Your task to perform on an android device: open app "Etsy: Buy & Sell Unique Items" (install if not already installed), go to login, and select forgot password Image 0: 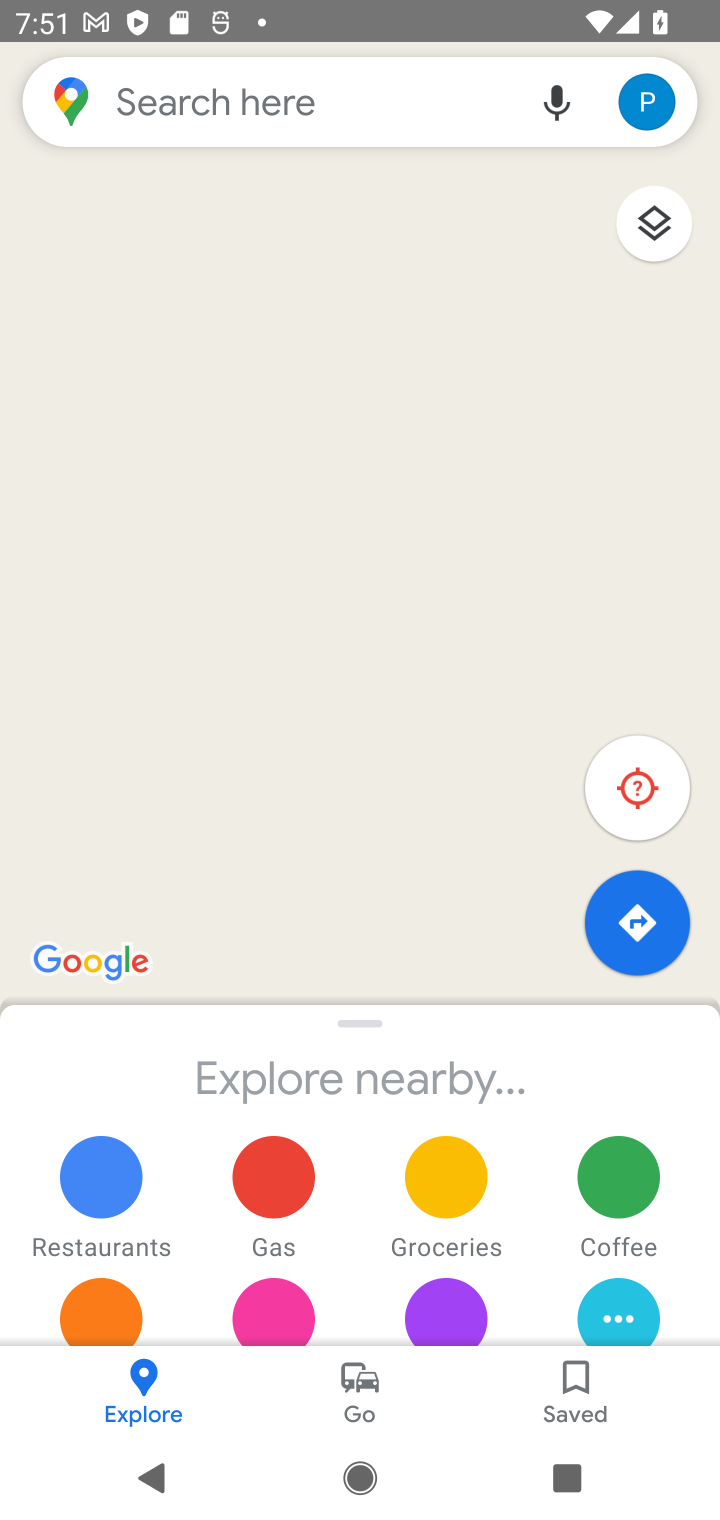
Step 0: press back button
Your task to perform on an android device: open app "Etsy: Buy & Sell Unique Items" (install if not already installed), go to login, and select forgot password Image 1: 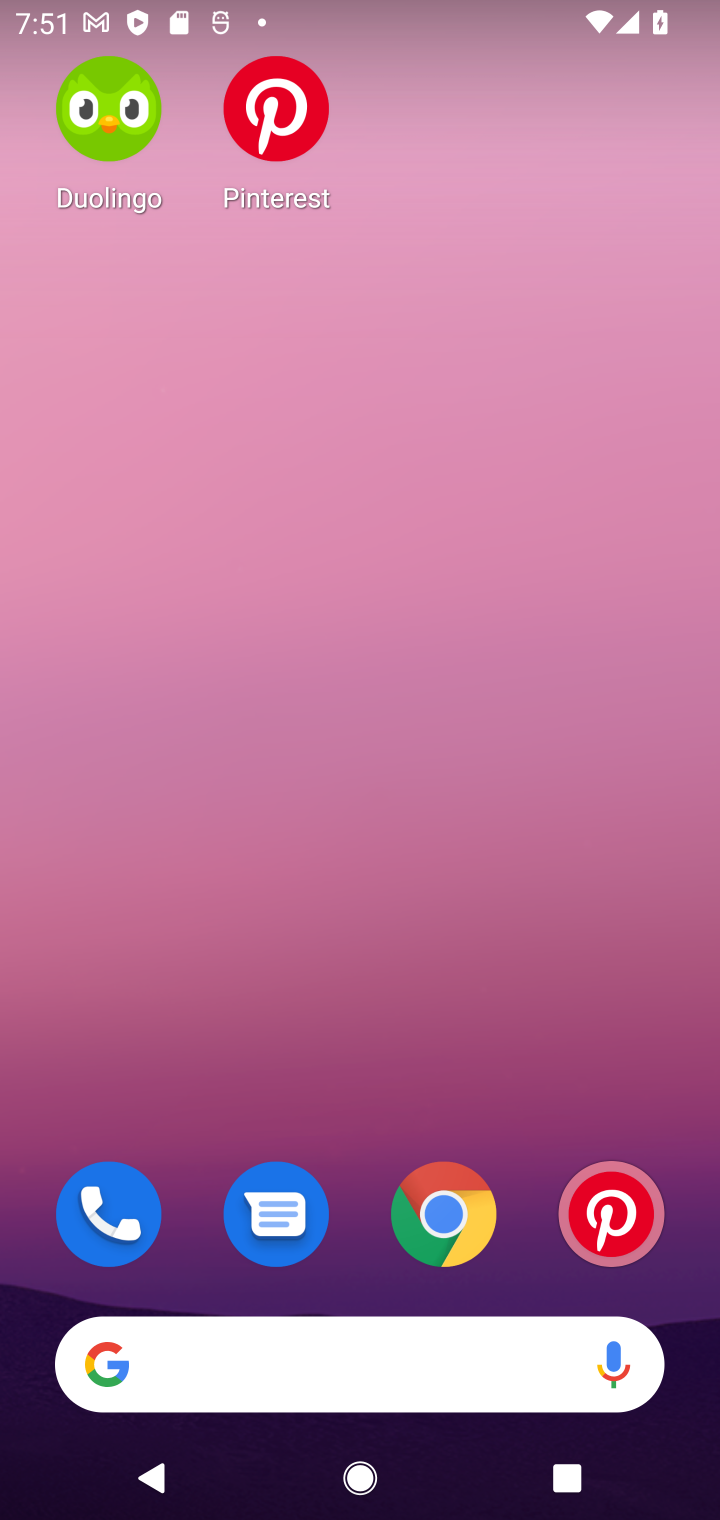
Step 1: drag from (317, 1128) to (323, 44)
Your task to perform on an android device: open app "Etsy: Buy & Sell Unique Items" (install if not already installed), go to login, and select forgot password Image 2: 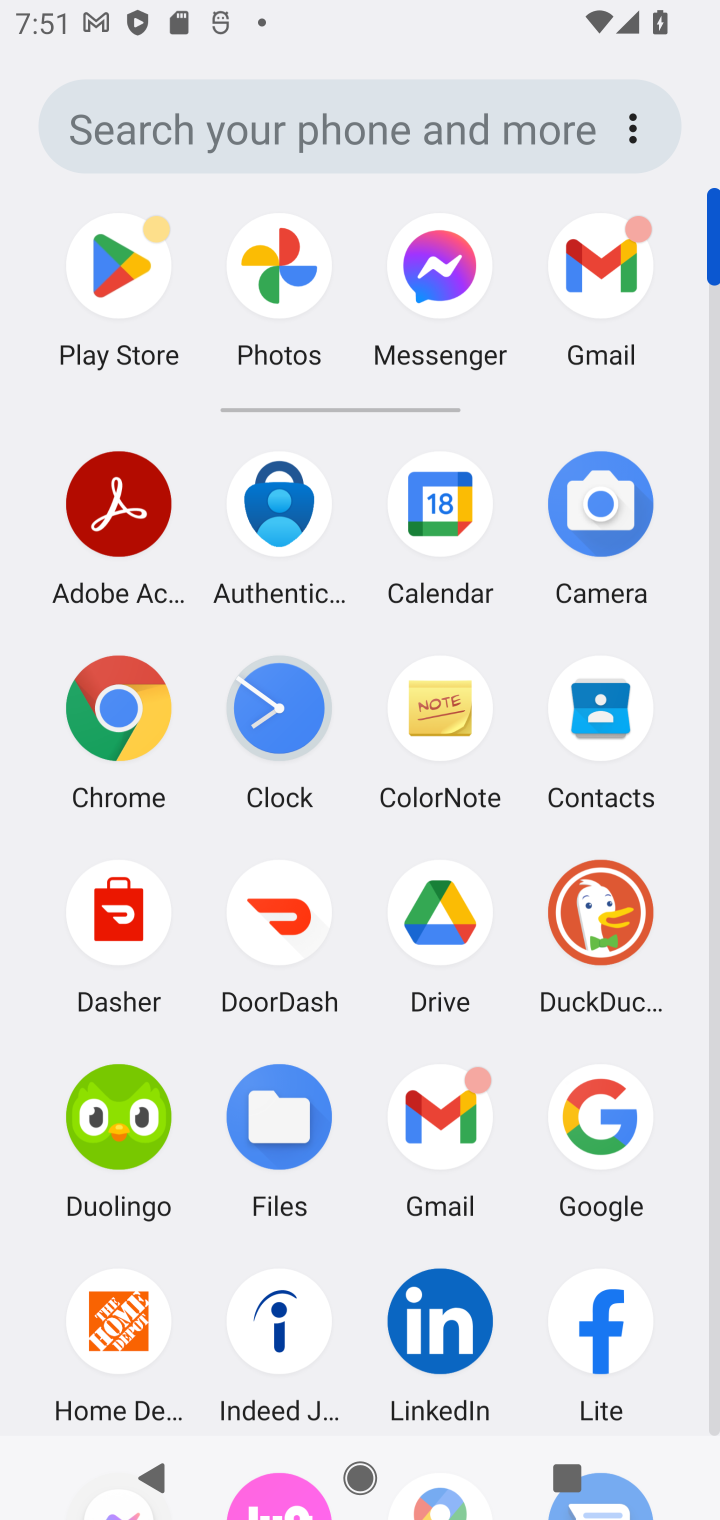
Step 2: click (124, 268)
Your task to perform on an android device: open app "Etsy: Buy & Sell Unique Items" (install if not already installed), go to login, and select forgot password Image 3: 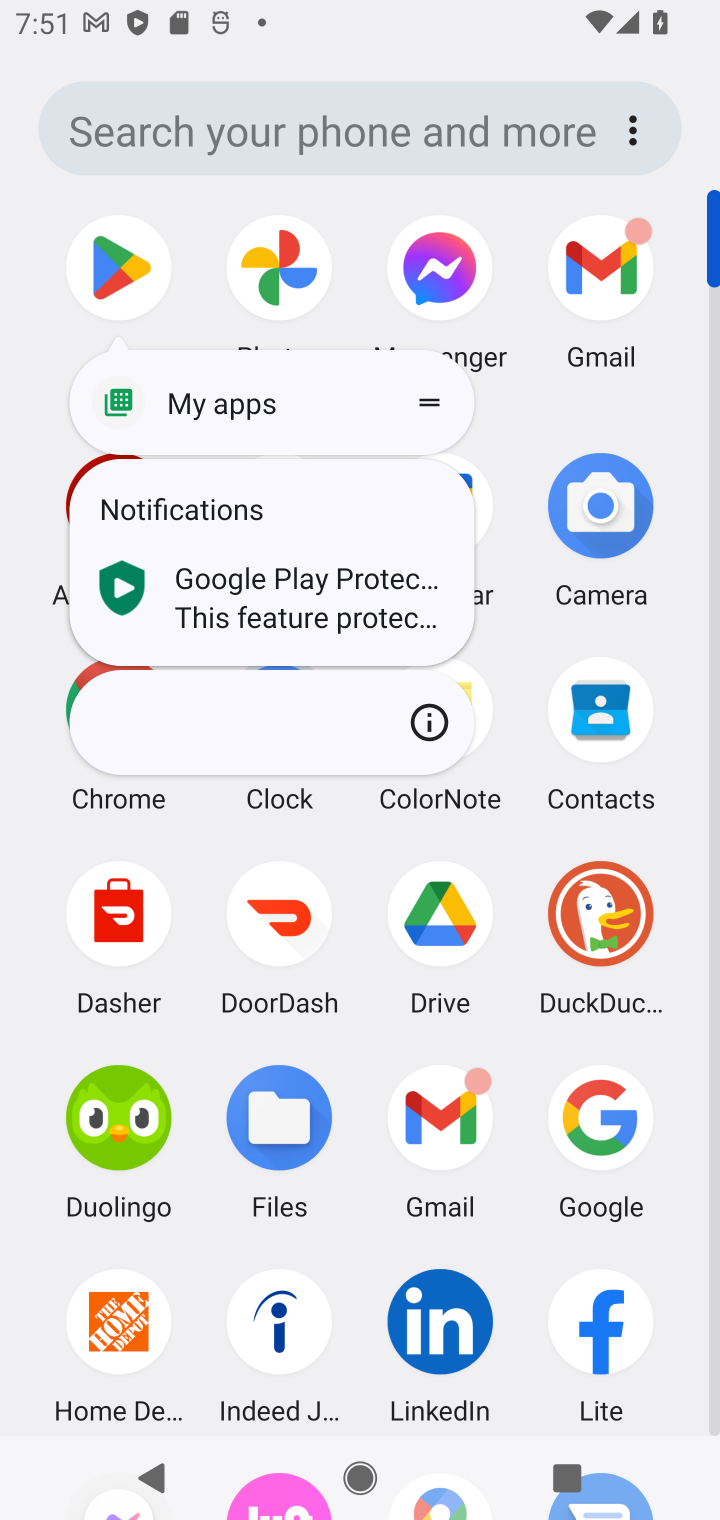
Step 3: click (122, 258)
Your task to perform on an android device: open app "Etsy: Buy & Sell Unique Items" (install if not already installed), go to login, and select forgot password Image 4: 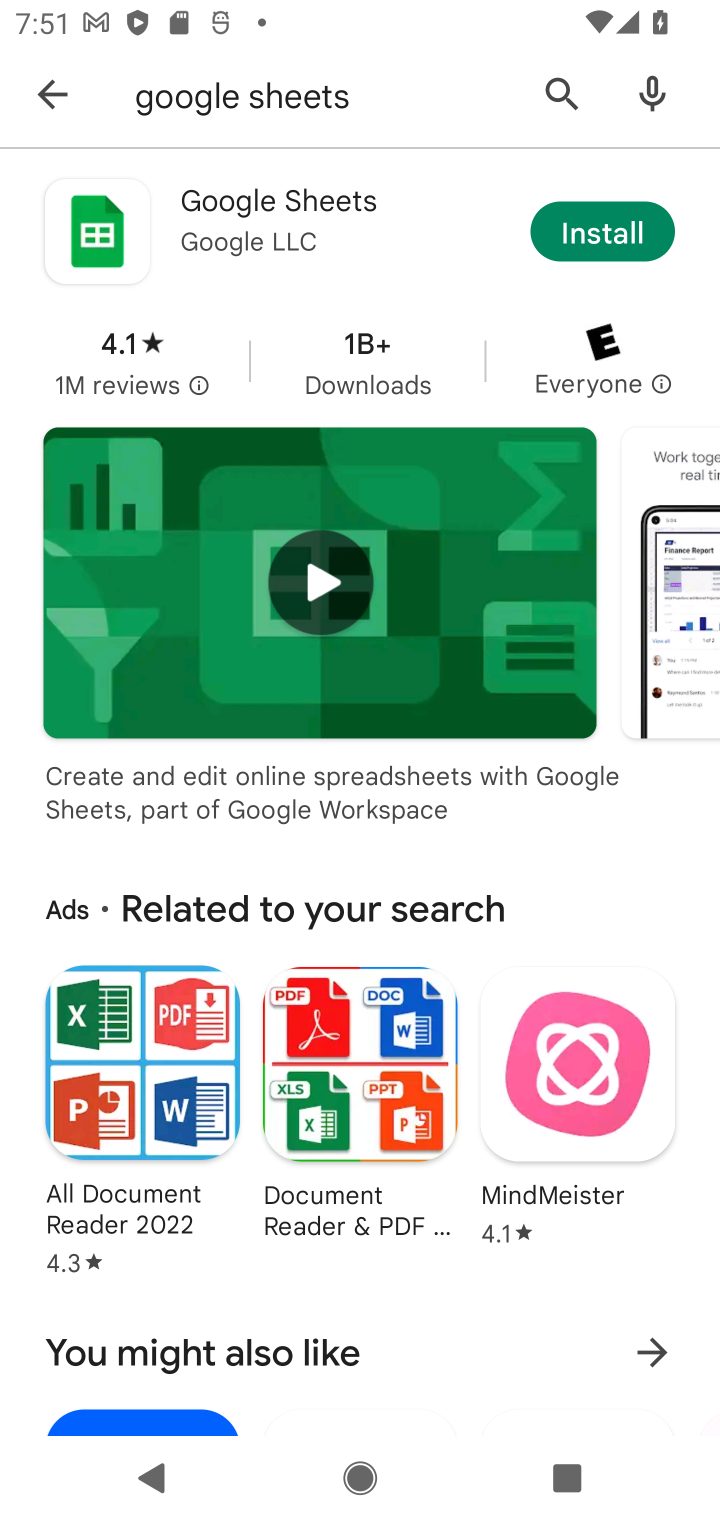
Step 4: click (557, 88)
Your task to perform on an android device: open app "Etsy: Buy & Sell Unique Items" (install if not already installed), go to login, and select forgot password Image 5: 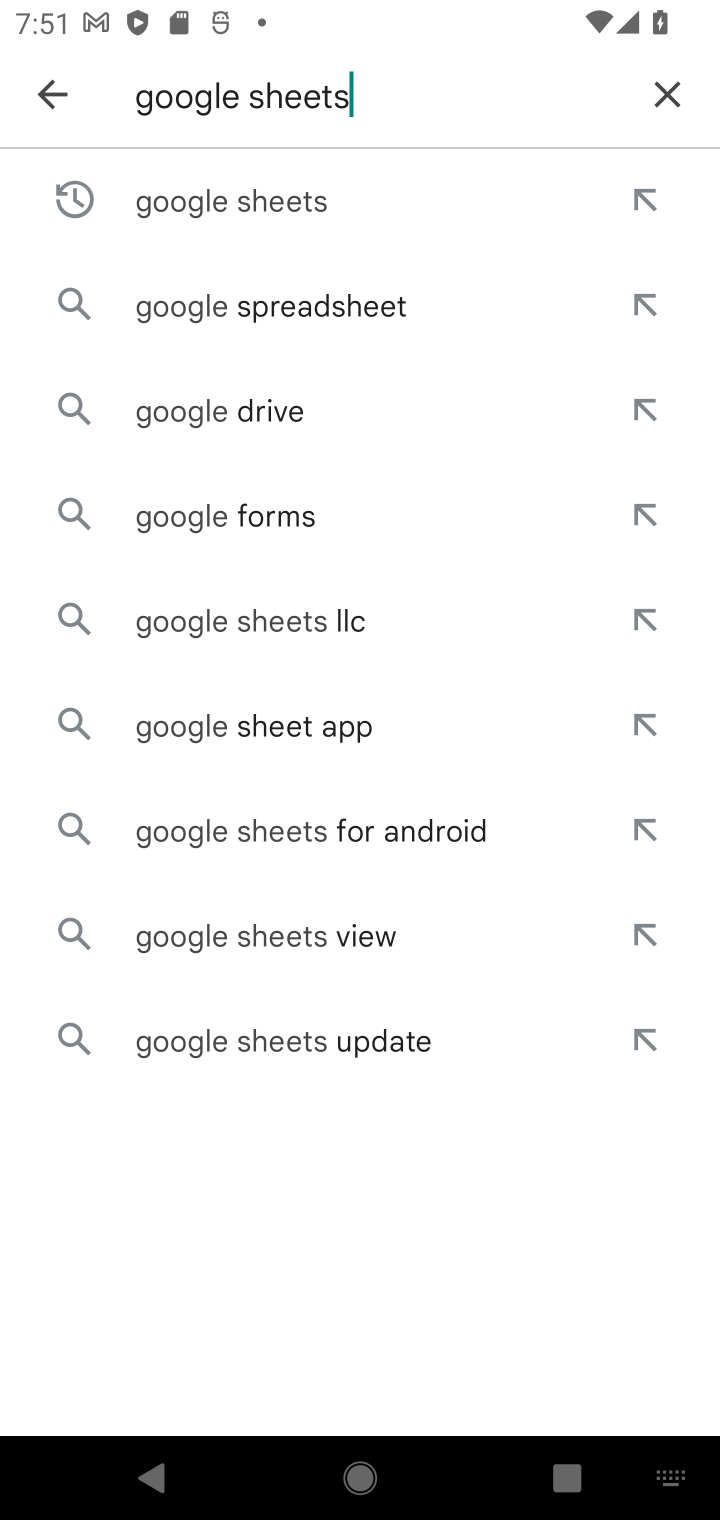
Step 5: click (680, 86)
Your task to perform on an android device: open app "Etsy: Buy & Sell Unique Items" (install if not already installed), go to login, and select forgot password Image 6: 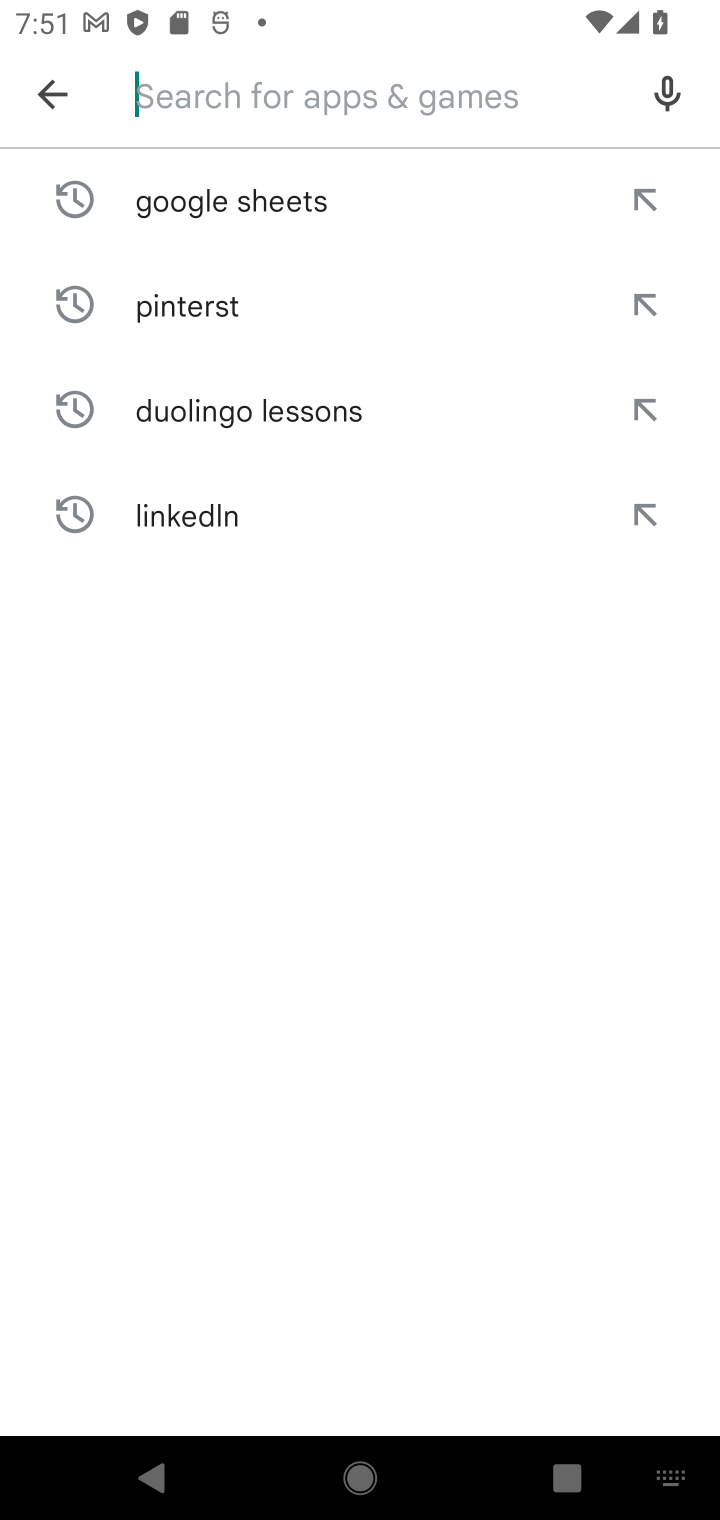
Step 6: click (299, 80)
Your task to perform on an android device: open app "Etsy: Buy & Sell Unique Items" (install if not already installed), go to login, and select forgot password Image 7: 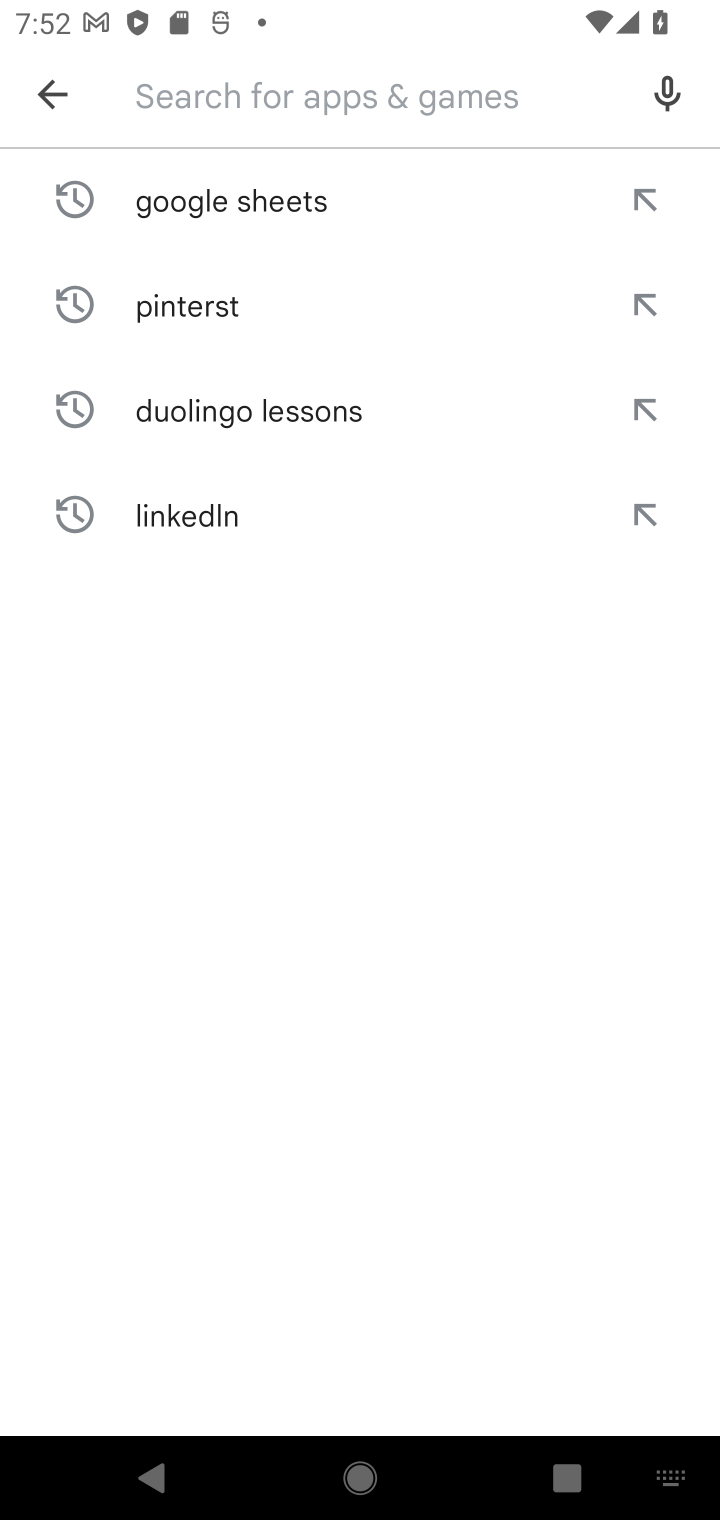
Step 7: type "etsy"
Your task to perform on an android device: open app "Etsy: Buy & Sell Unique Items" (install if not already installed), go to login, and select forgot password Image 8: 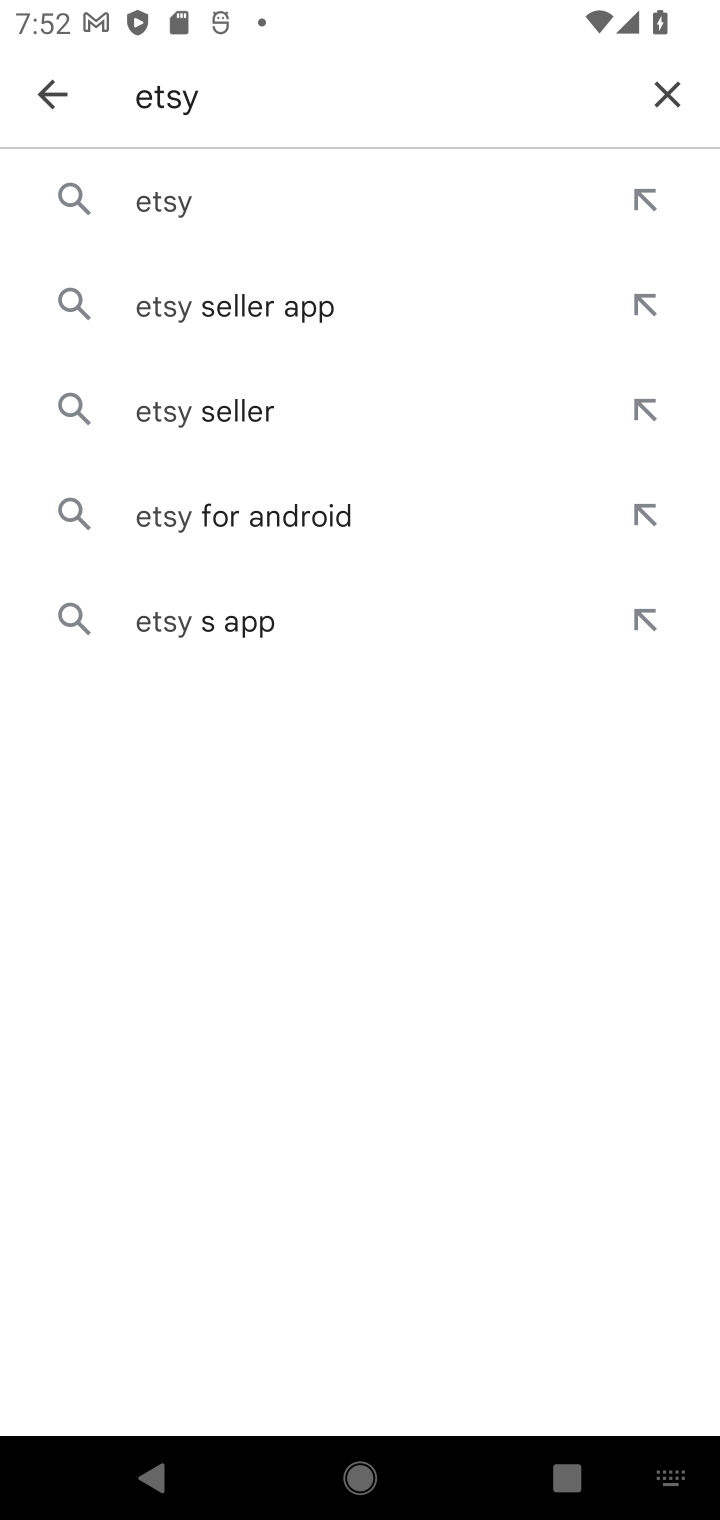
Step 8: click (157, 188)
Your task to perform on an android device: open app "Etsy: Buy & Sell Unique Items" (install if not already installed), go to login, and select forgot password Image 9: 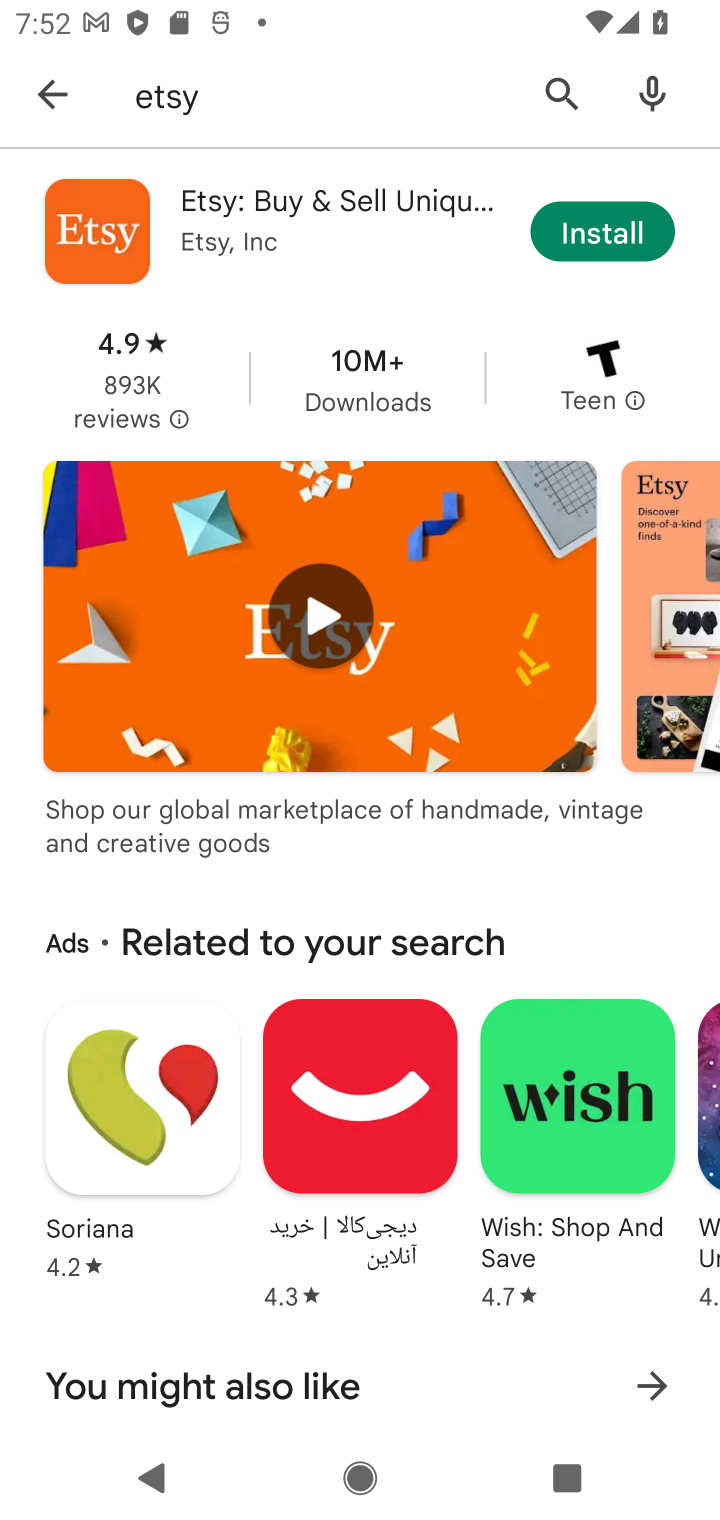
Step 9: click (593, 231)
Your task to perform on an android device: open app "Etsy: Buy & Sell Unique Items" (install if not already installed), go to login, and select forgot password Image 10: 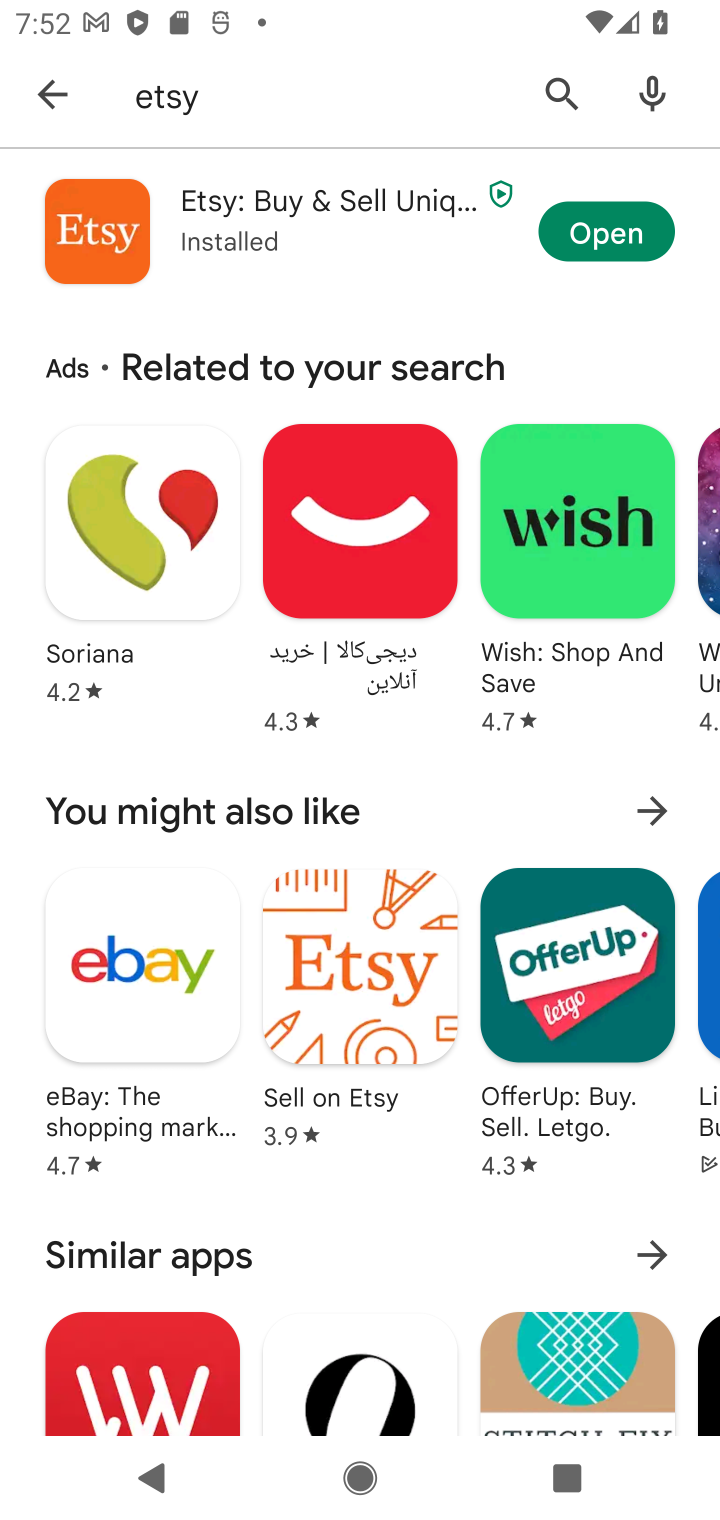
Step 10: click (596, 235)
Your task to perform on an android device: open app "Etsy: Buy & Sell Unique Items" (install if not already installed), go to login, and select forgot password Image 11: 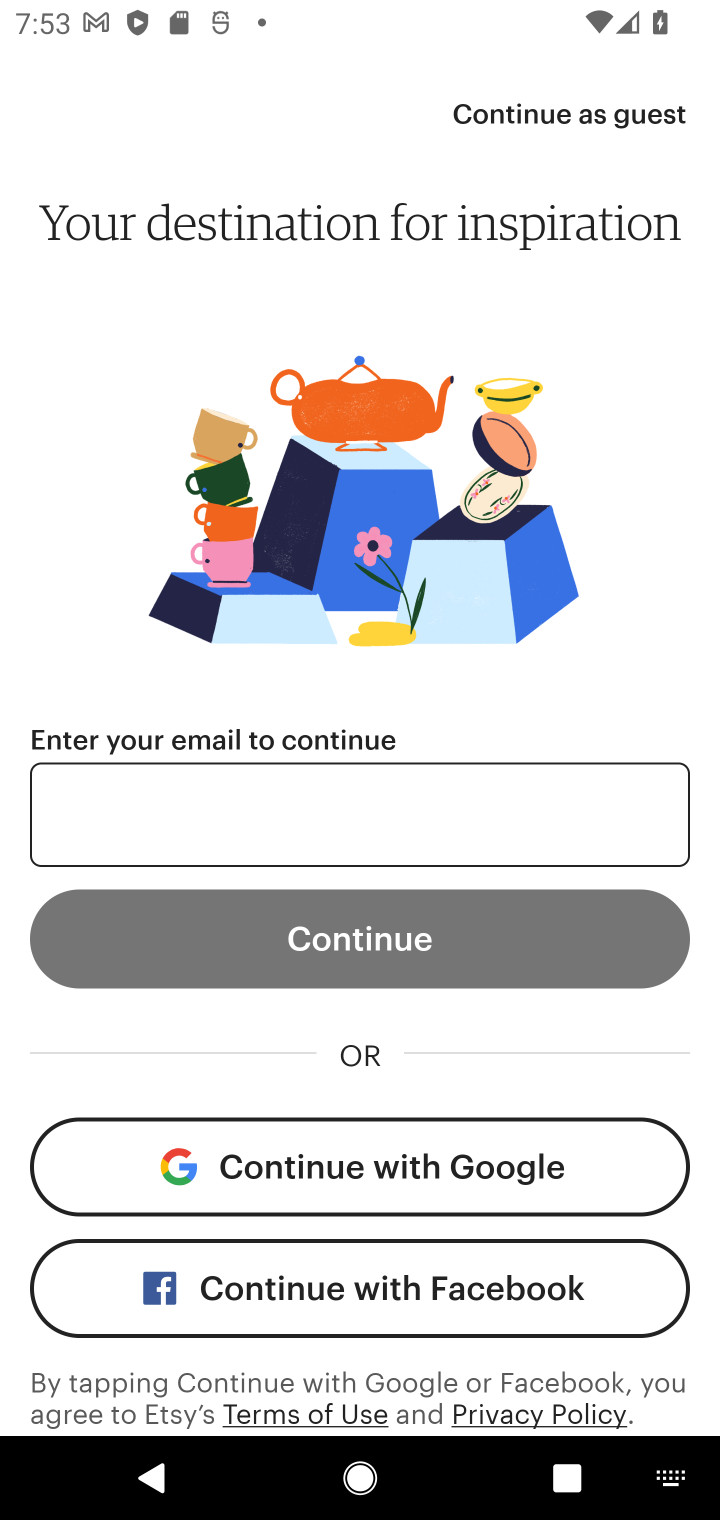
Step 11: drag from (458, 1094) to (472, 233)
Your task to perform on an android device: open app "Etsy: Buy & Sell Unique Items" (install if not already installed), go to login, and select forgot password Image 12: 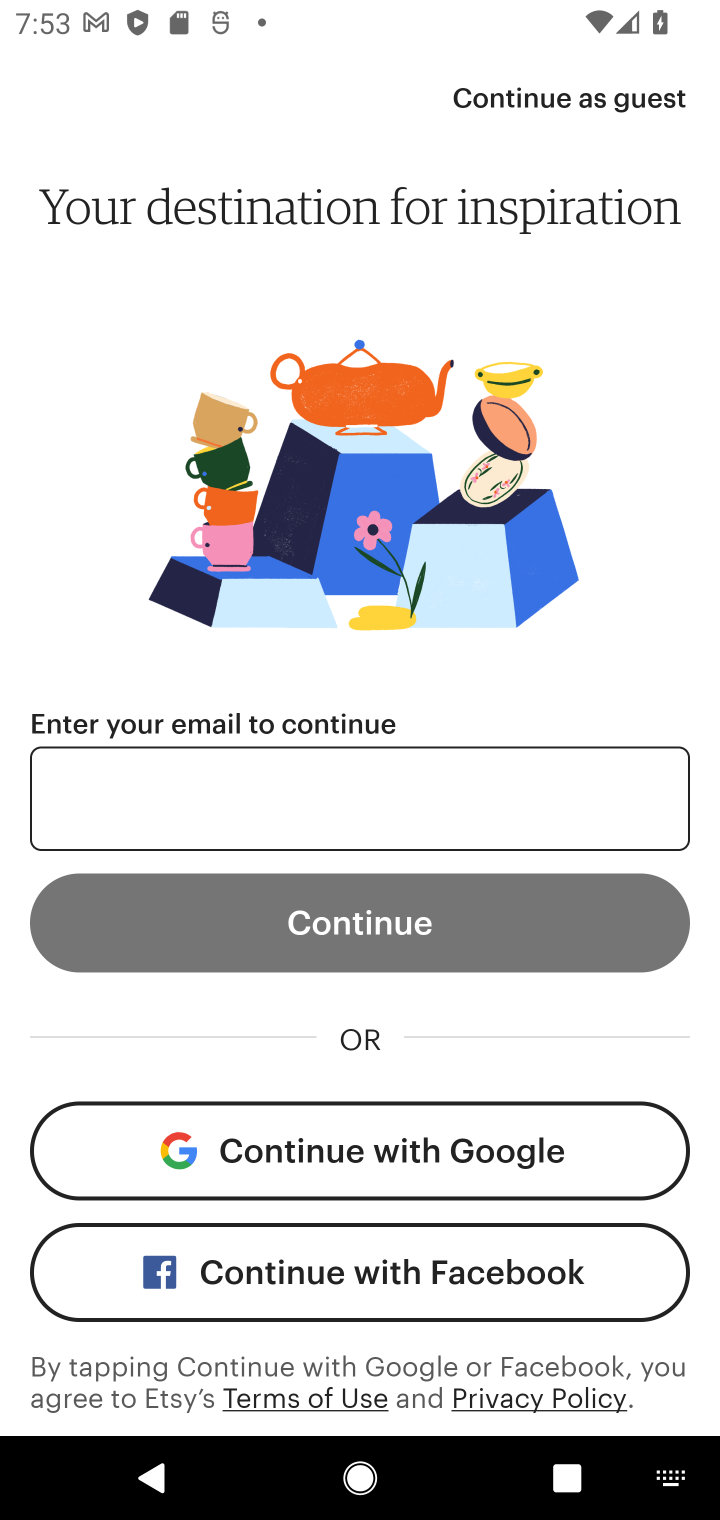
Step 12: click (370, 909)
Your task to perform on an android device: open app "Etsy: Buy & Sell Unique Items" (install if not already installed), go to login, and select forgot password Image 13: 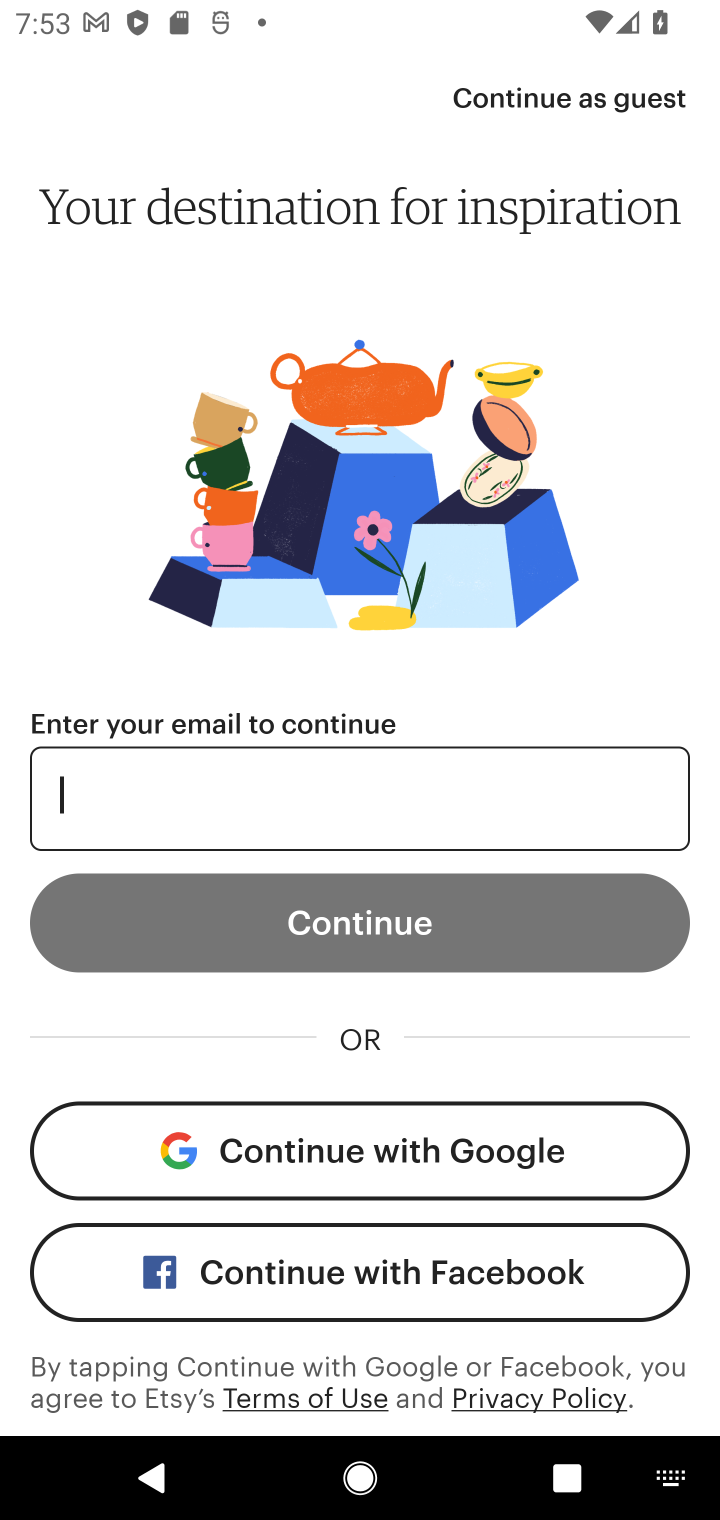
Step 13: task complete